Your task to perform on an android device: Open calendar and show me the first week of next month Image 0: 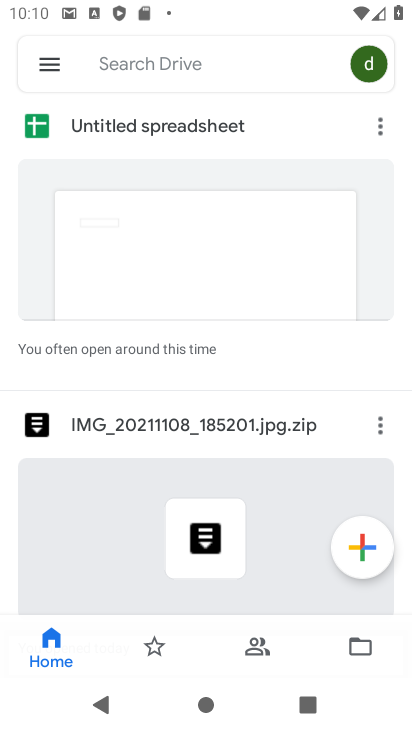
Step 0: press home button
Your task to perform on an android device: Open calendar and show me the first week of next month Image 1: 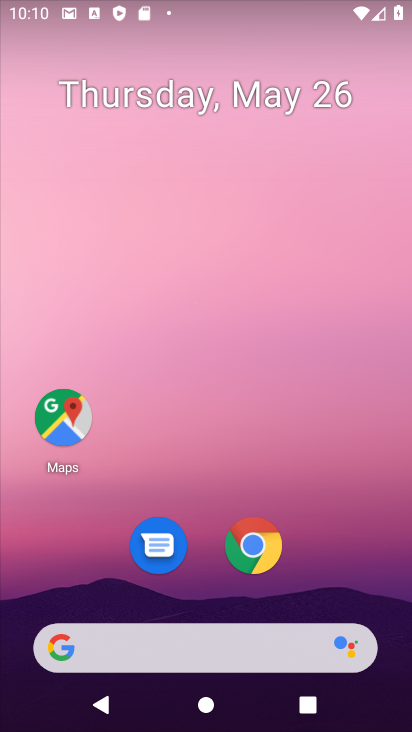
Step 1: drag from (345, 480) to (379, 188)
Your task to perform on an android device: Open calendar and show me the first week of next month Image 2: 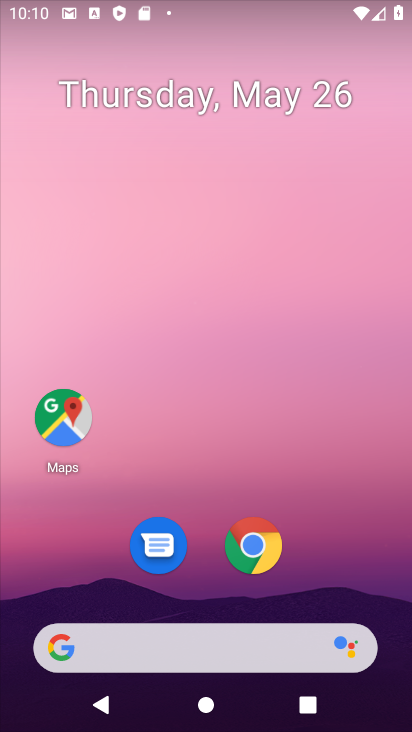
Step 2: drag from (309, 552) to (348, 212)
Your task to perform on an android device: Open calendar and show me the first week of next month Image 3: 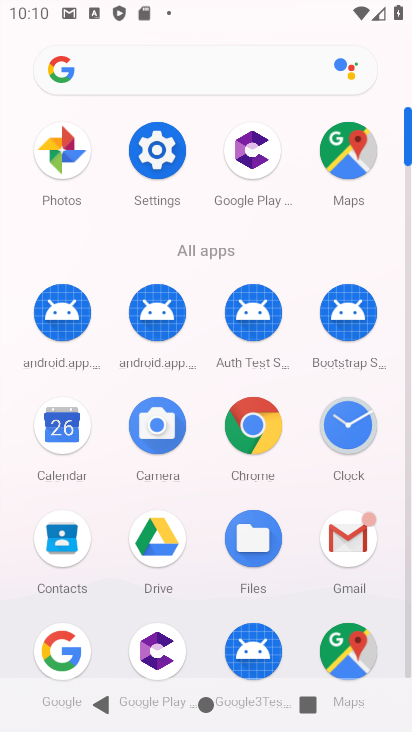
Step 3: click (56, 439)
Your task to perform on an android device: Open calendar and show me the first week of next month Image 4: 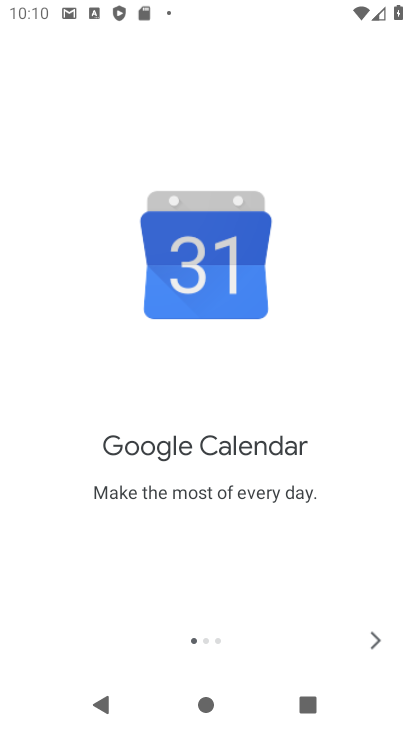
Step 4: click (382, 642)
Your task to perform on an android device: Open calendar and show me the first week of next month Image 5: 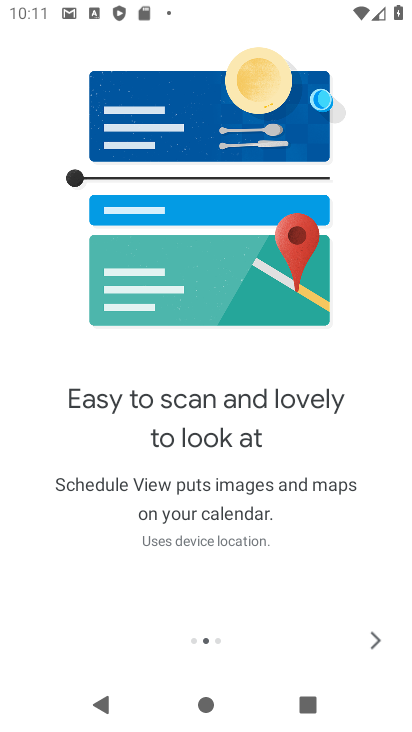
Step 5: click (369, 633)
Your task to perform on an android device: Open calendar and show me the first week of next month Image 6: 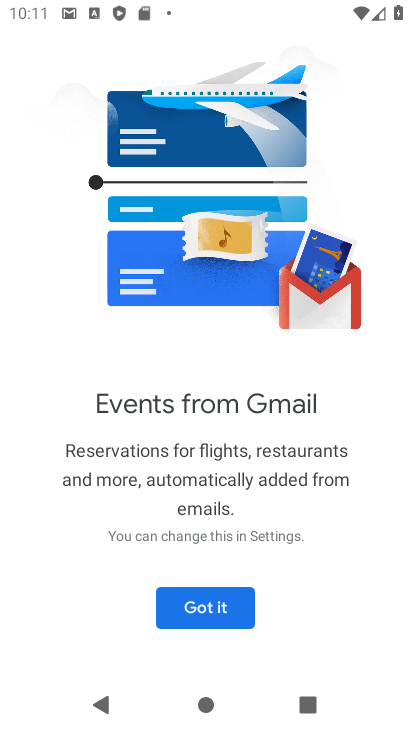
Step 6: click (230, 597)
Your task to perform on an android device: Open calendar and show me the first week of next month Image 7: 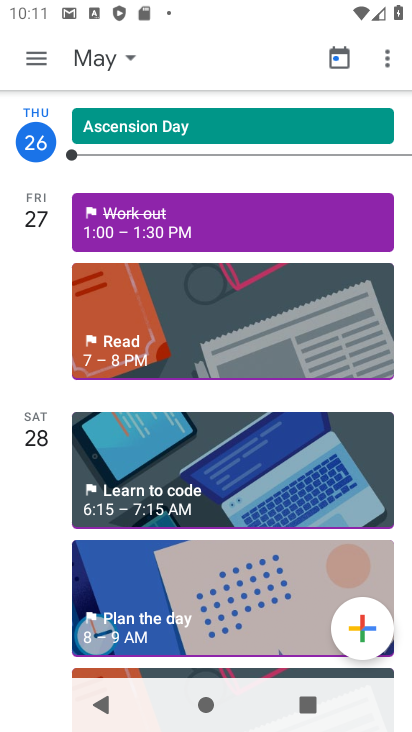
Step 7: task complete